Your task to perform on an android device: move an email to a new category in the gmail app Image 0: 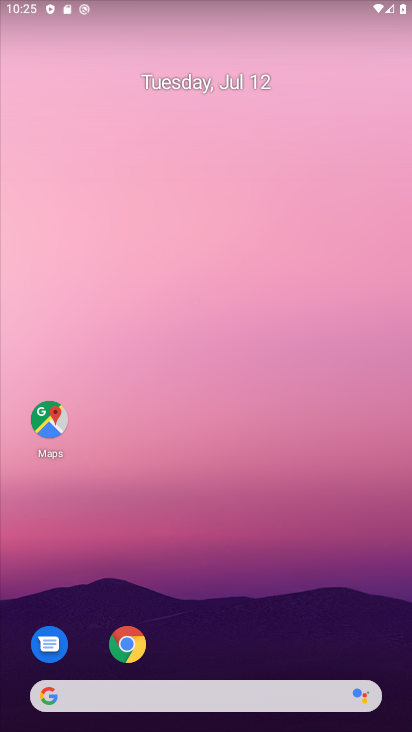
Step 0: drag from (178, 698) to (262, 193)
Your task to perform on an android device: move an email to a new category in the gmail app Image 1: 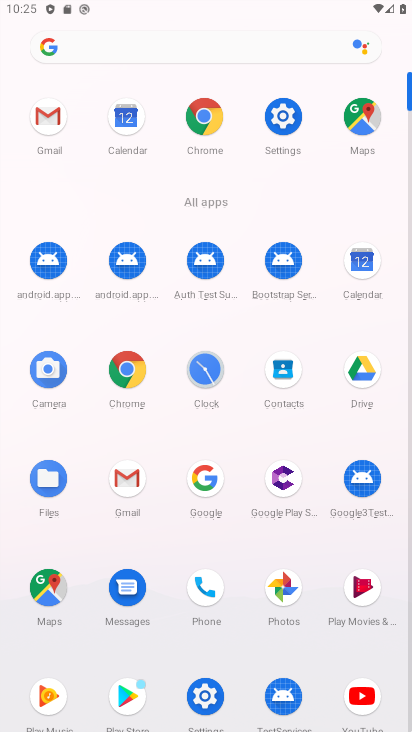
Step 1: click (48, 127)
Your task to perform on an android device: move an email to a new category in the gmail app Image 2: 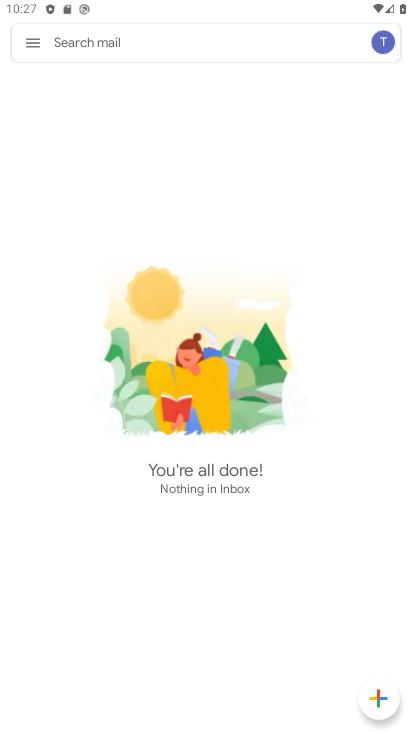
Step 2: task complete